Your task to perform on an android device: Search for seafood restaurants on Google Maps Image 0: 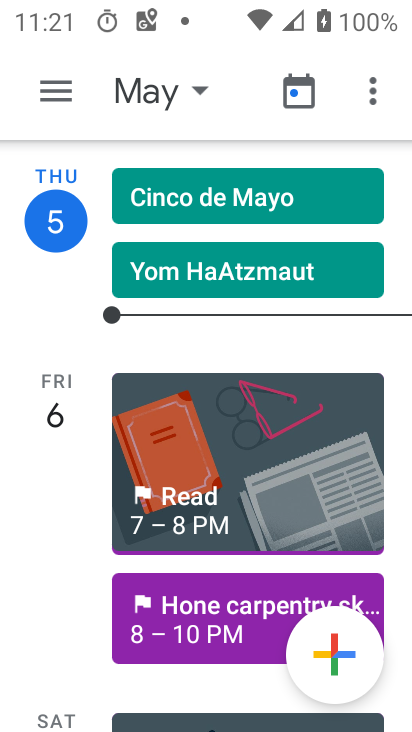
Step 0: press home button
Your task to perform on an android device: Search for seafood restaurants on Google Maps Image 1: 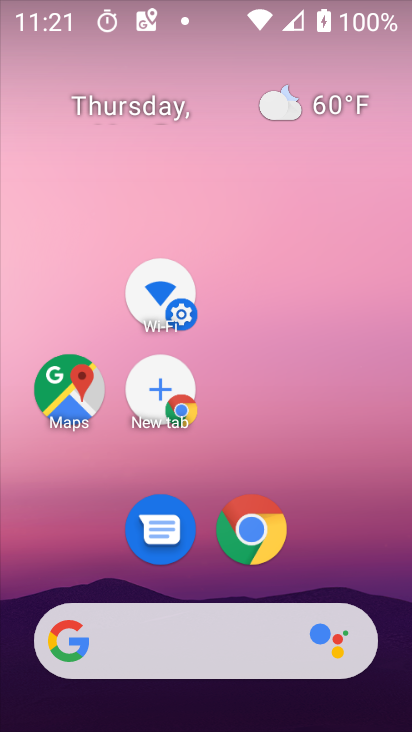
Step 1: drag from (358, 553) to (174, 6)
Your task to perform on an android device: Search for seafood restaurants on Google Maps Image 2: 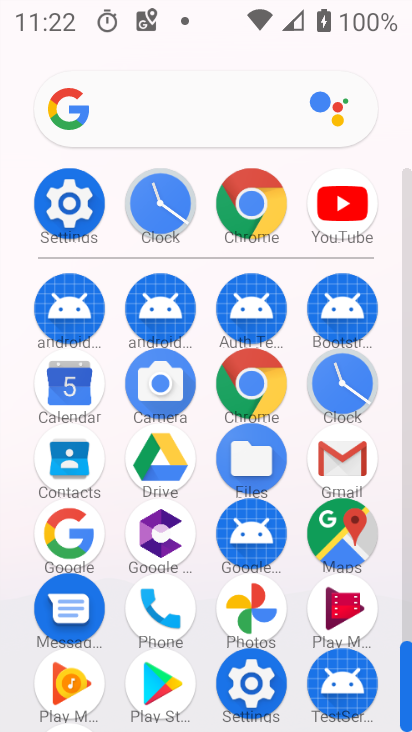
Step 2: click (346, 529)
Your task to perform on an android device: Search for seafood restaurants on Google Maps Image 3: 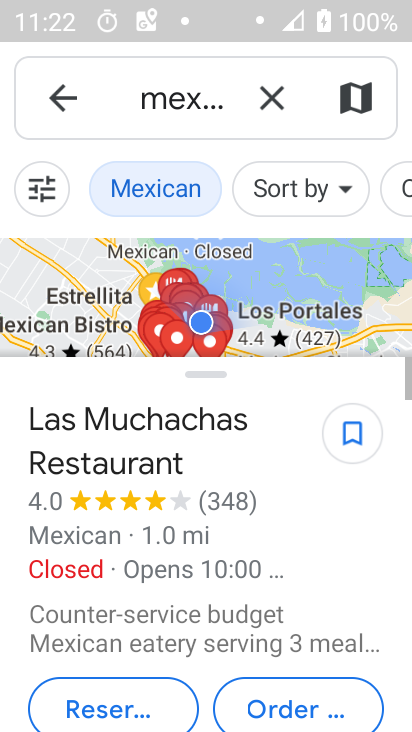
Step 3: click (274, 94)
Your task to perform on an android device: Search for seafood restaurants on Google Maps Image 4: 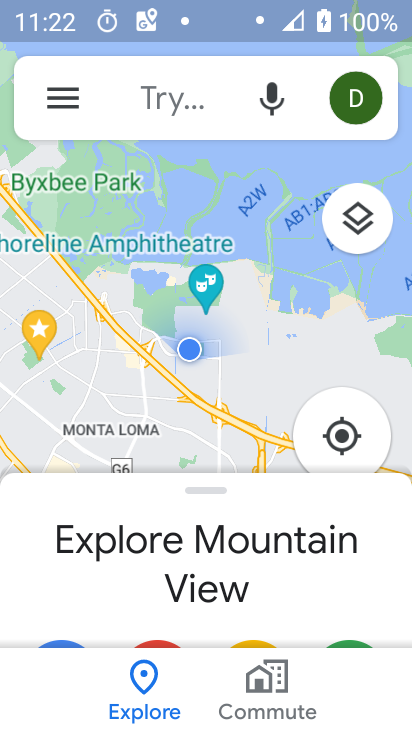
Step 4: click (133, 84)
Your task to perform on an android device: Search for seafood restaurants on Google Maps Image 5: 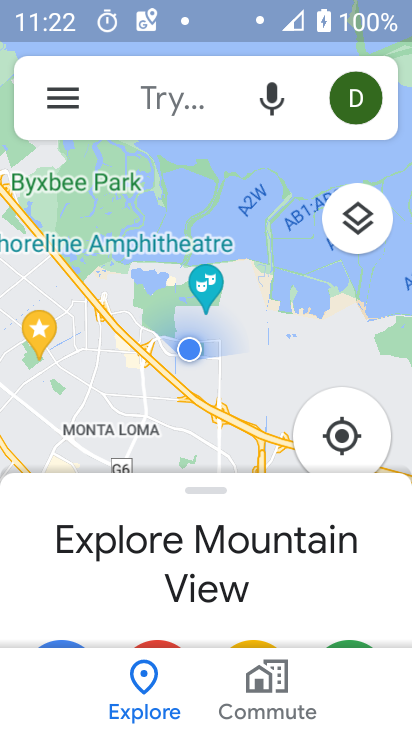
Step 5: click (153, 105)
Your task to perform on an android device: Search for seafood restaurants on Google Maps Image 6: 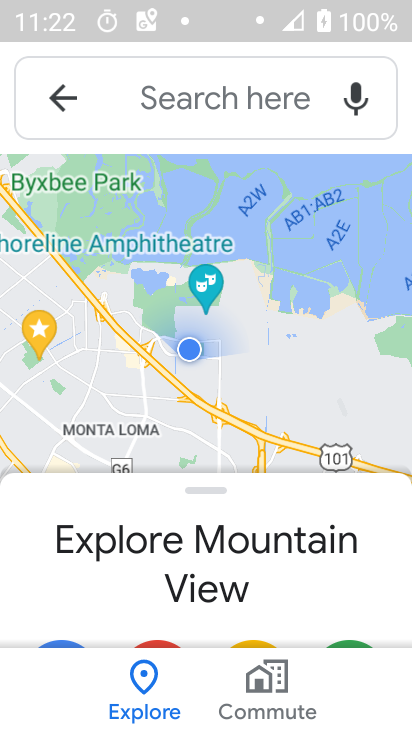
Step 6: click (178, 106)
Your task to perform on an android device: Search for seafood restaurants on Google Maps Image 7: 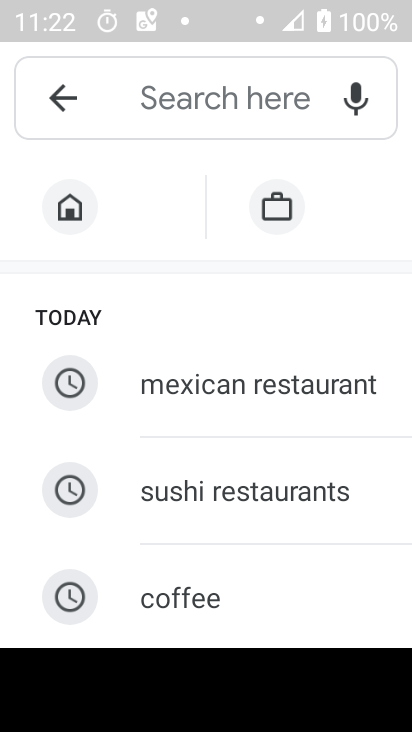
Step 7: drag from (273, 554) to (224, 305)
Your task to perform on an android device: Search for seafood restaurants on Google Maps Image 8: 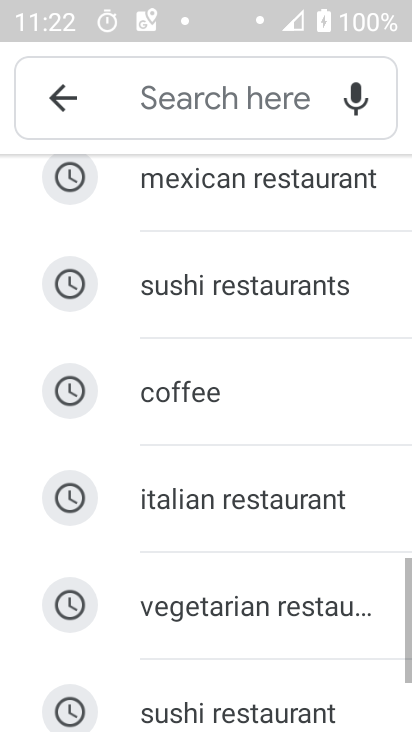
Step 8: drag from (260, 435) to (262, 262)
Your task to perform on an android device: Search for seafood restaurants on Google Maps Image 9: 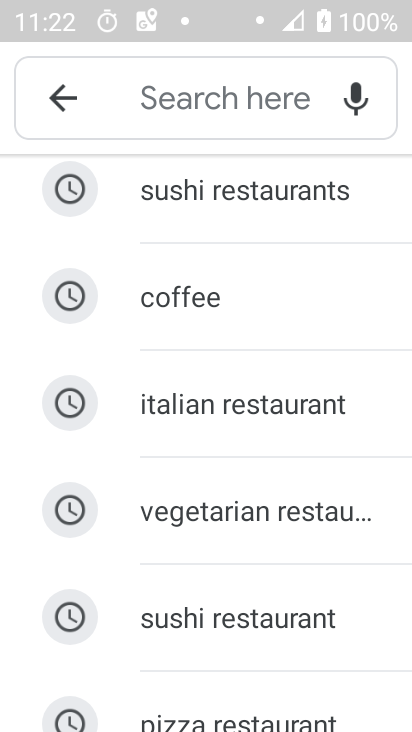
Step 9: type "seafood restaurants"
Your task to perform on an android device: Search for seafood restaurants on Google Maps Image 10: 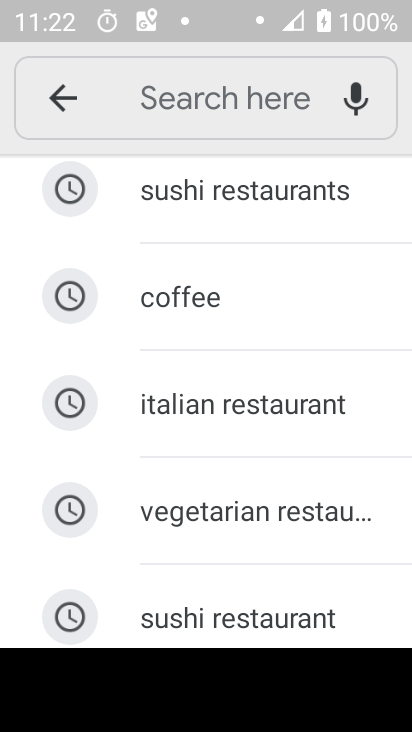
Step 10: click (158, 120)
Your task to perform on an android device: Search for seafood restaurants on Google Maps Image 11: 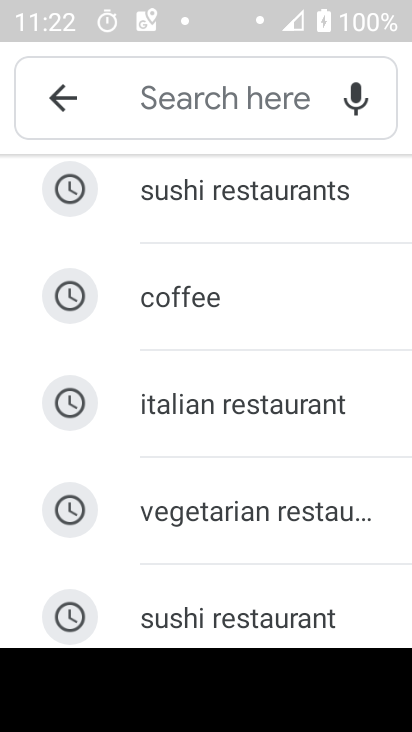
Step 11: type "seafood restaurants"
Your task to perform on an android device: Search for seafood restaurants on Google Maps Image 12: 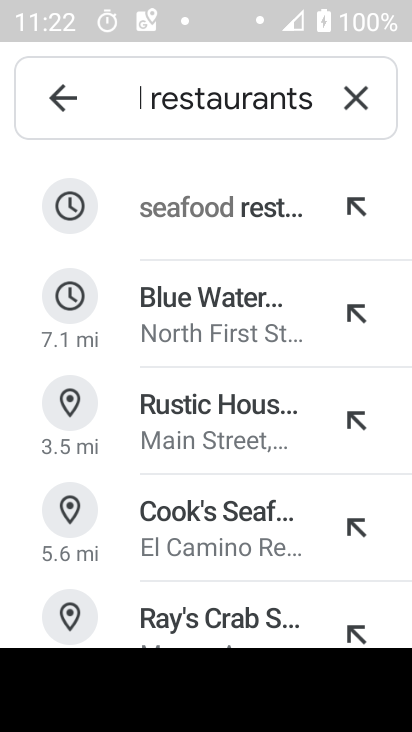
Step 12: click (266, 204)
Your task to perform on an android device: Search for seafood restaurants on Google Maps Image 13: 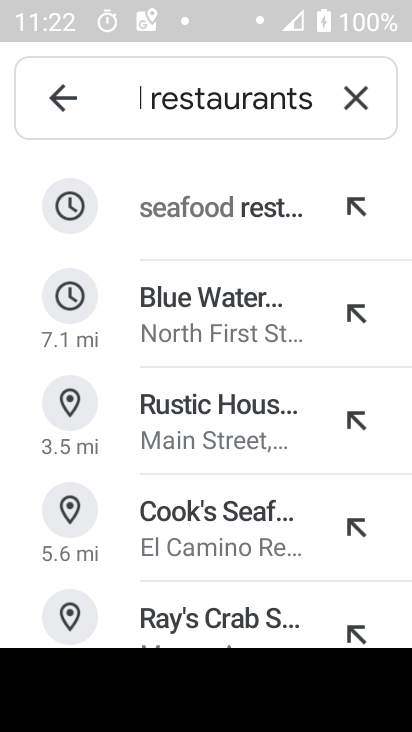
Step 13: click (266, 203)
Your task to perform on an android device: Search for seafood restaurants on Google Maps Image 14: 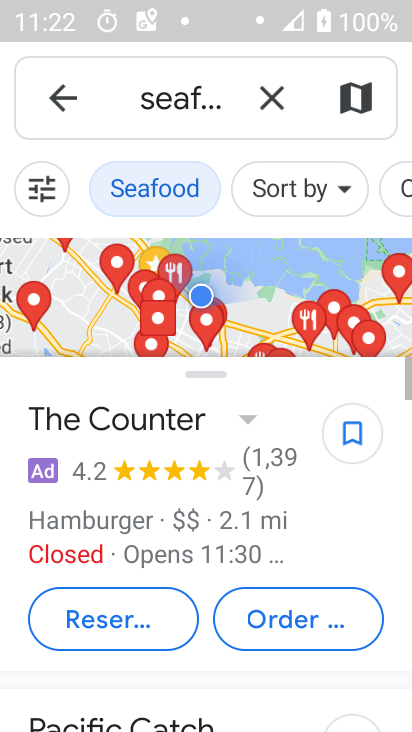
Step 14: task complete